Your task to perform on an android device: Open maps Image 0: 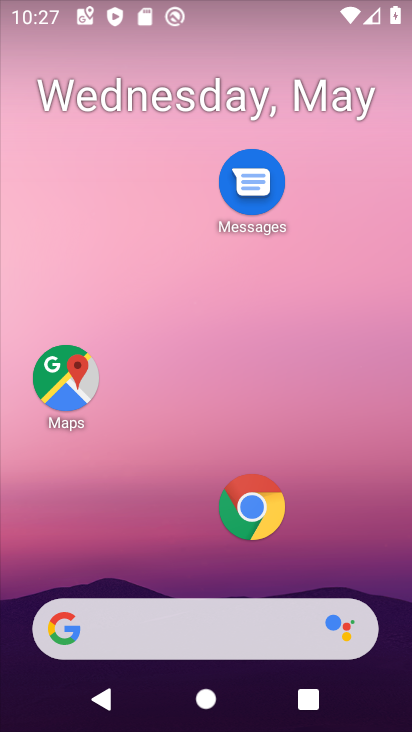
Step 0: press home button
Your task to perform on an android device: Open maps Image 1: 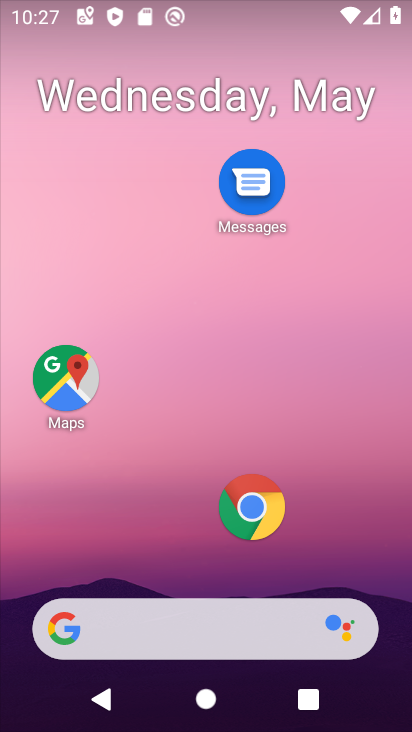
Step 1: click (62, 373)
Your task to perform on an android device: Open maps Image 2: 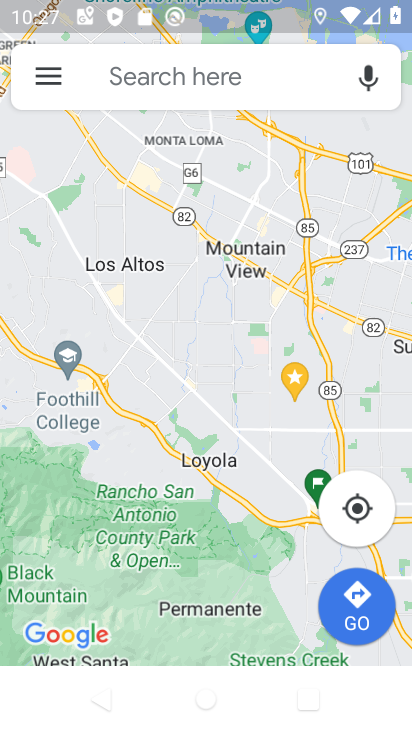
Step 2: task complete